Your task to perform on an android device: Check the news Image 0: 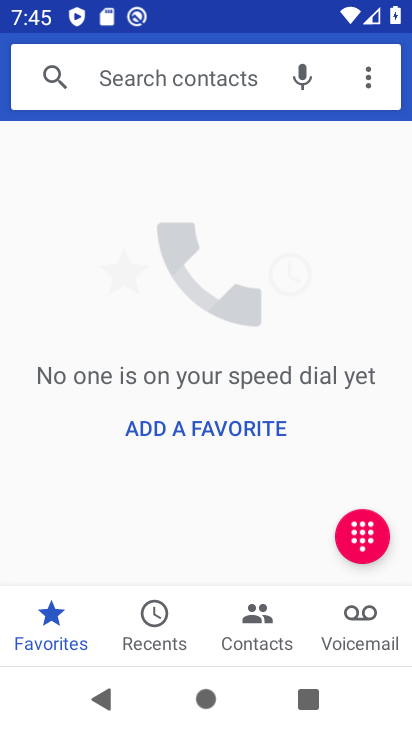
Step 0: press home button
Your task to perform on an android device: Check the news Image 1: 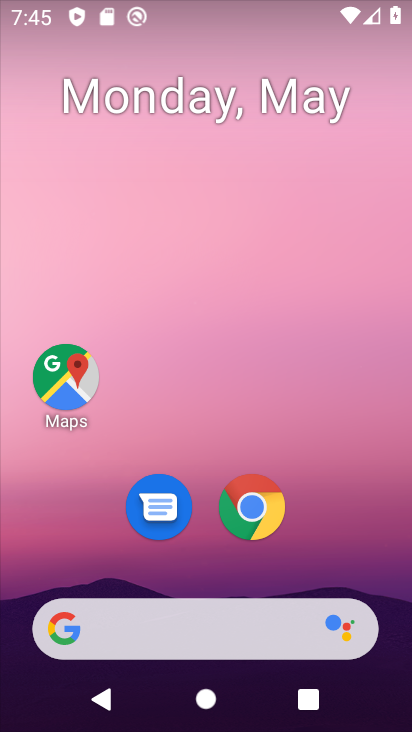
Step 1: click (131, 624)
Your task to perform on an android device: Check the news Image 2: 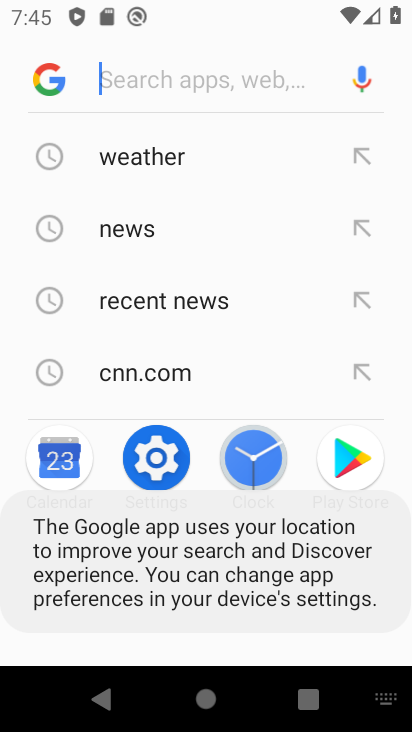
Step 2: click (145, 234)
Your task to perform on an android device: Check the news Image 3: 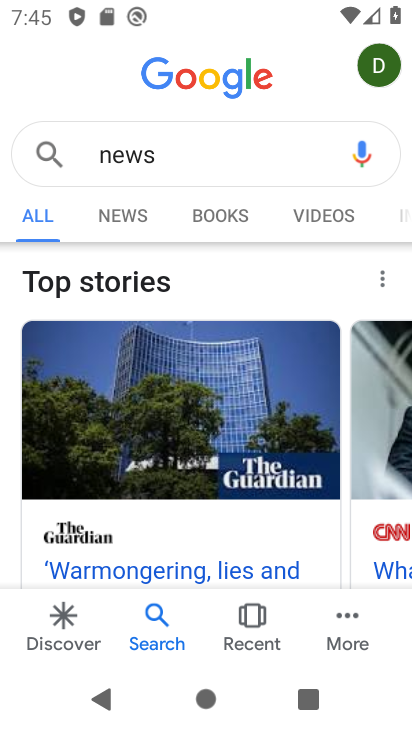
Step 3: click (132, 217)
Your task to perform on an android device: Check the news Image 4: 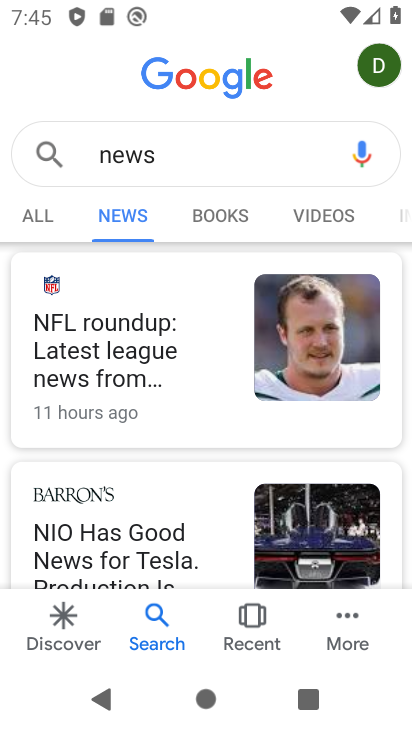
Step 4: task complete